Your task to perform on an android device: Look up the best rated coffee table on Ikea Image 0: 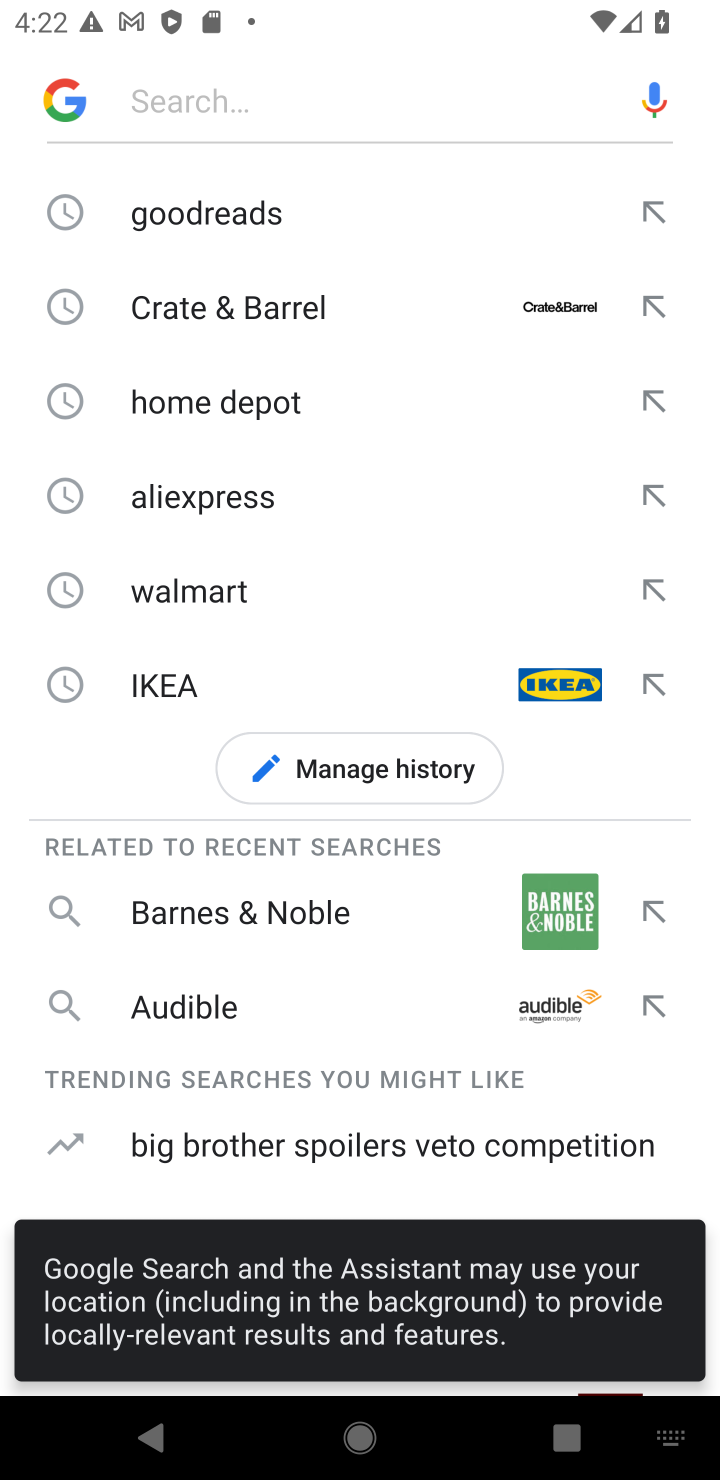
Step 0: press home button
Your task to perform on an android device: Look up the best rated coffee table on Ikea Image 1: 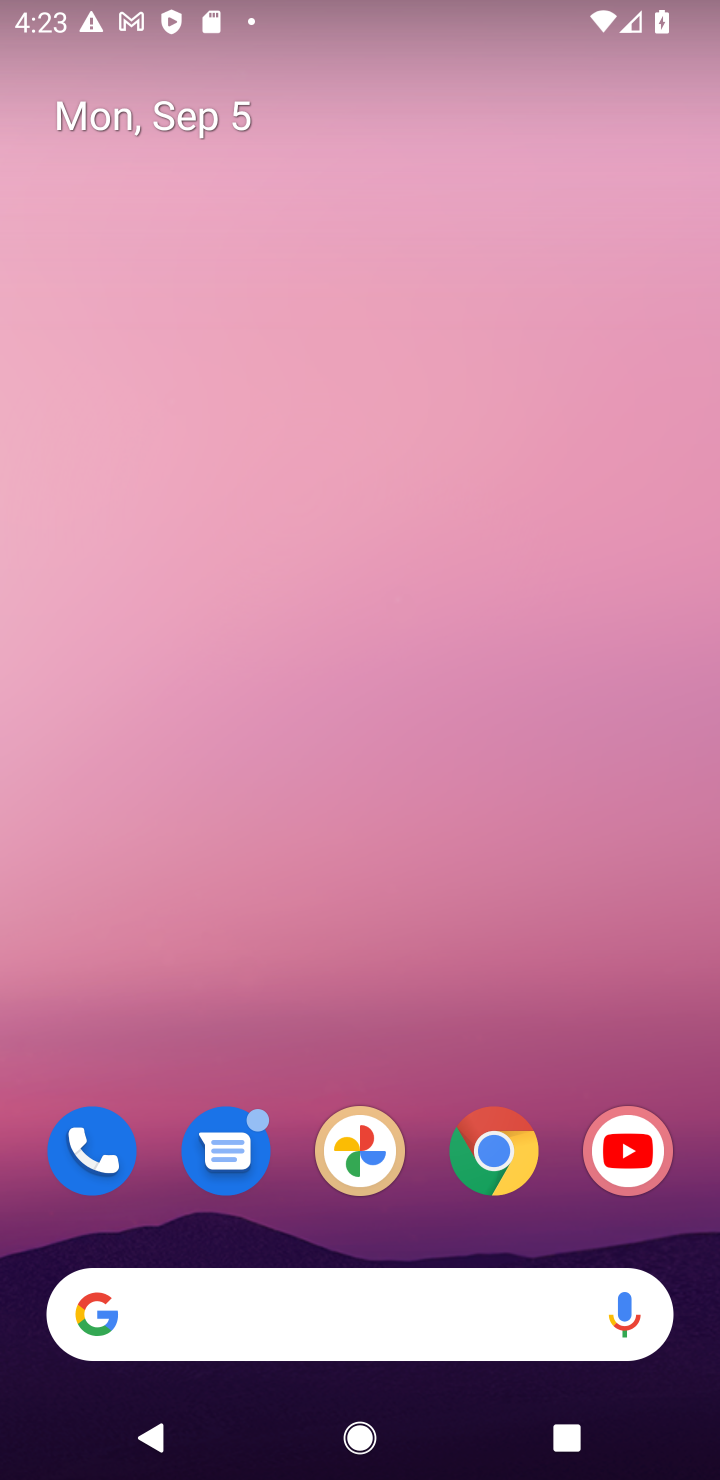
Step 1: drag from (485, 1198) to (581, 190)
Your task to perform on an android device: Look up the best rated coffee table on Ikea Image 2: 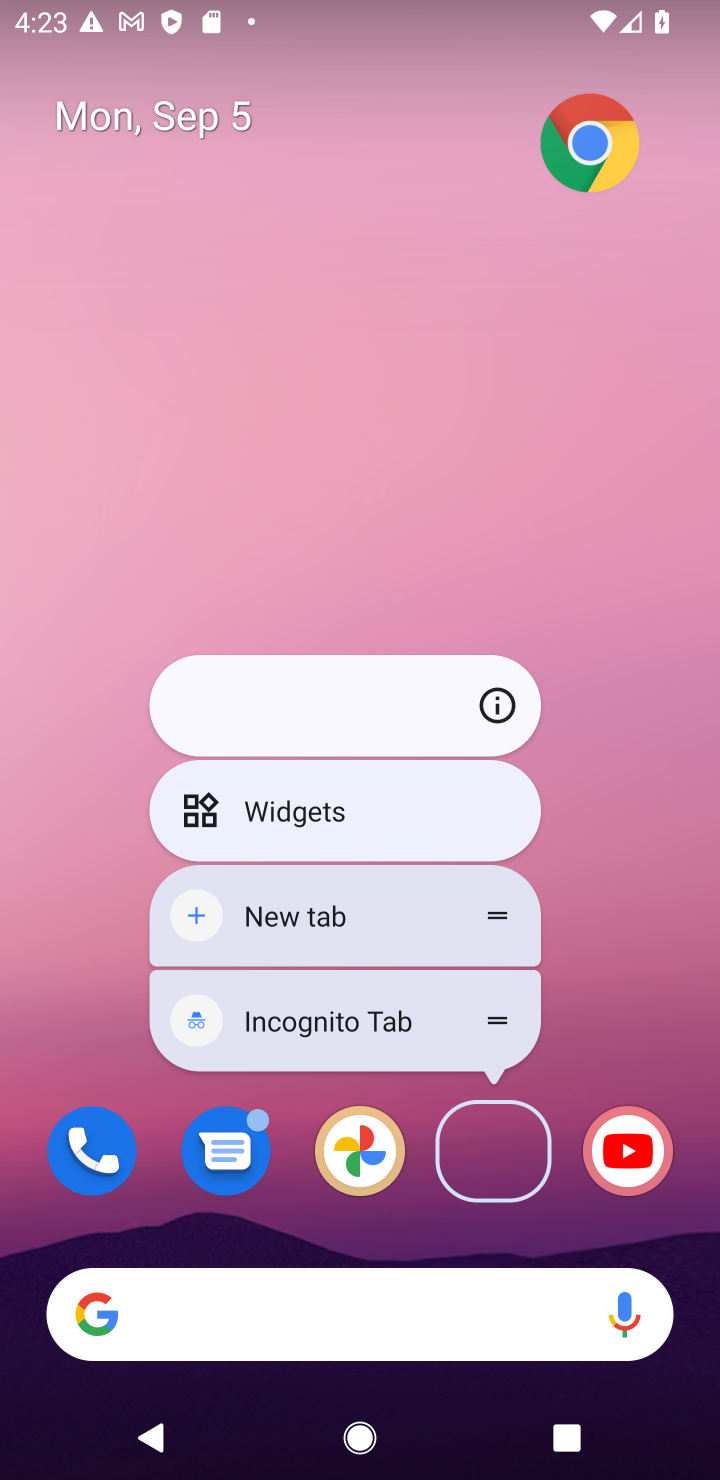
Step 2: click (438, 408)
Your task to perform on an android device: Look up the best rated coffee table on Ikea Image 3: 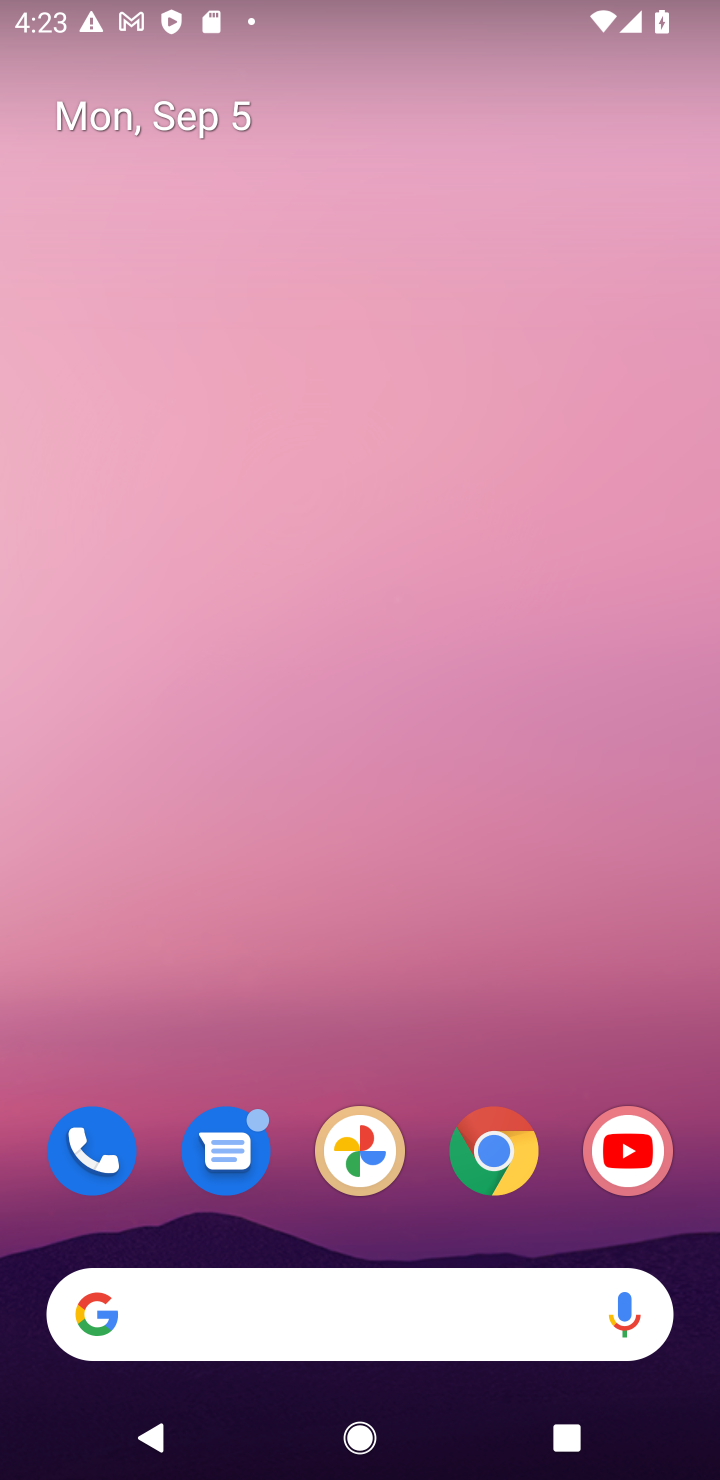
Step 3: drag from (349, 1256) to (500, 343)
Your task to perform on an android device: Look up the best rated coffee table on Ikea Image 4: 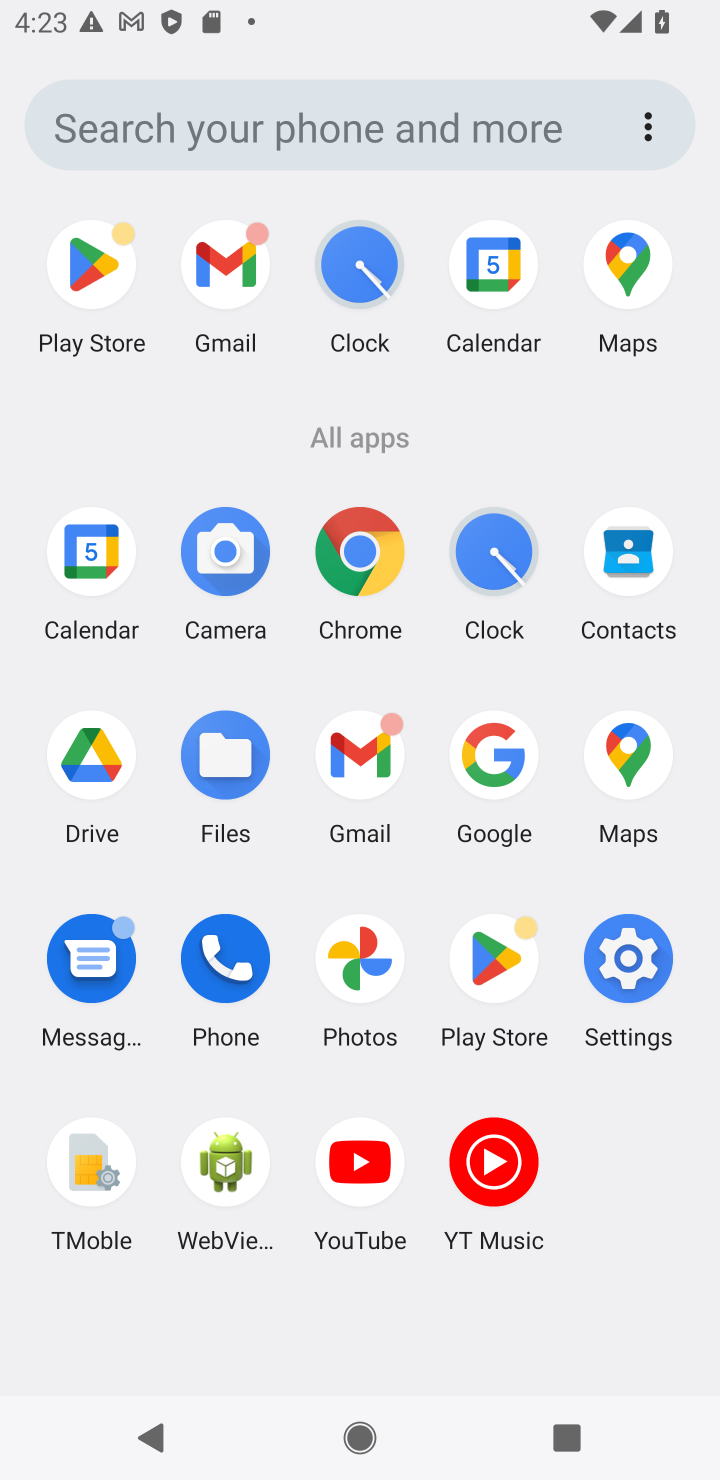
Step 4: click (372, 611)
Your task to perform on an android device: Look up the best rated coffee table on Ikea Image 5: 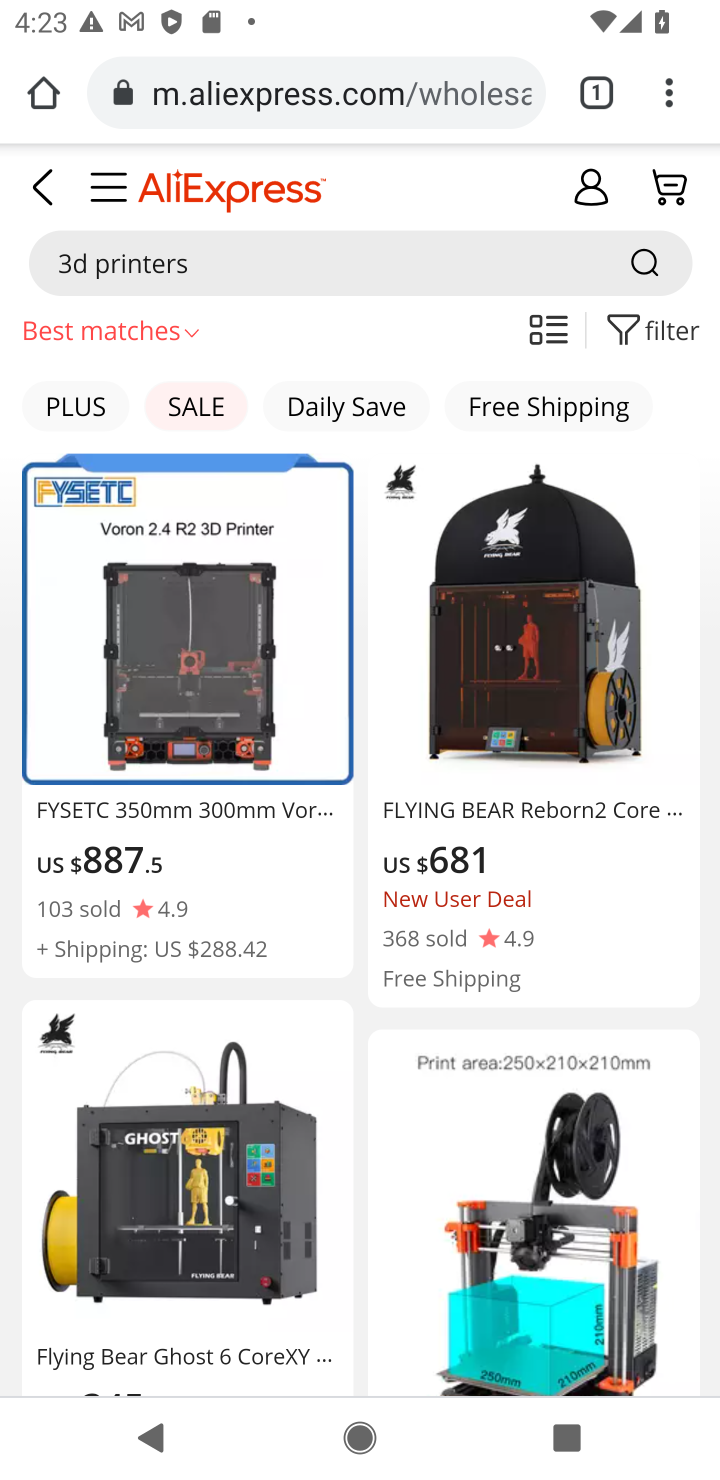
Step 5: click (372, 611)
Your task to perform on an android device: Look up the best rated coffee table on Ikea Image 6: 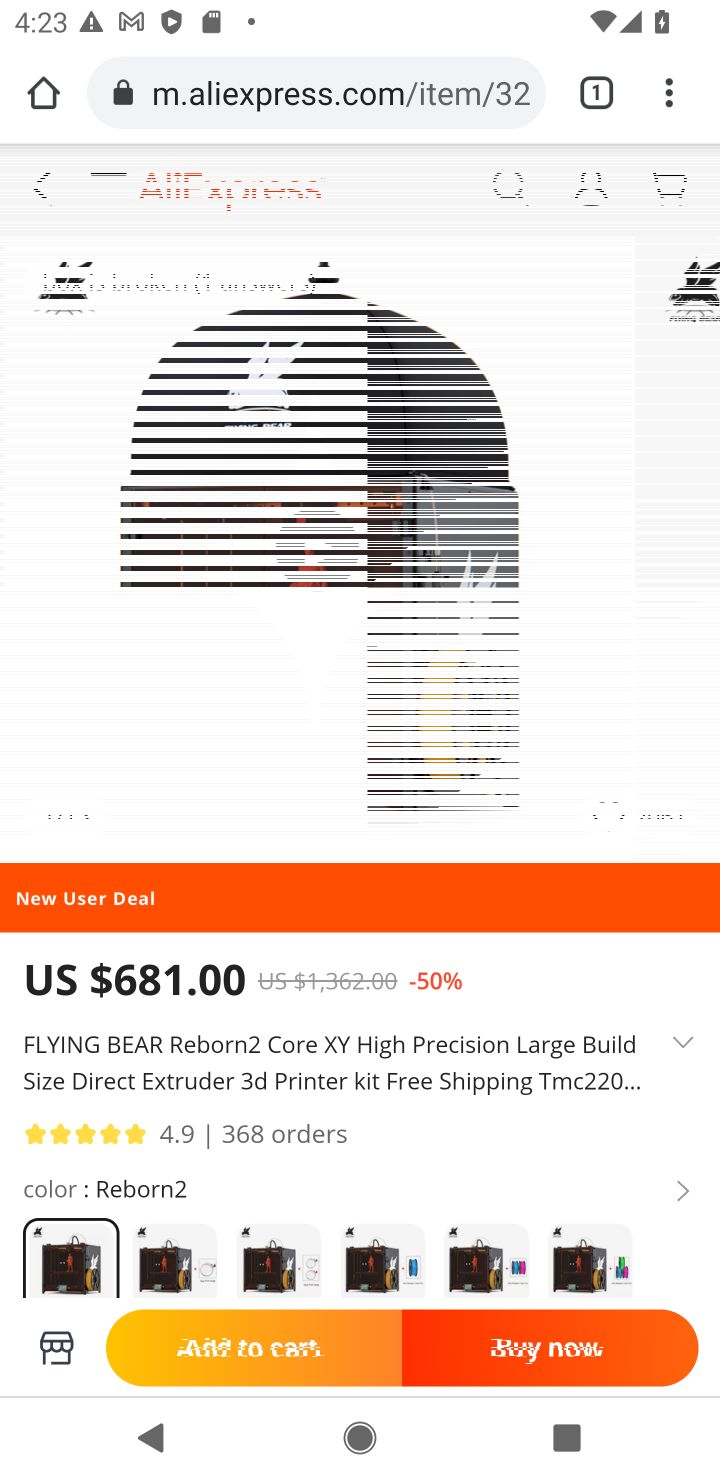
Step 6: click (419, 99)
Your task to perform on an android device: Look up the best rated coffee table on Ikea Image 7: 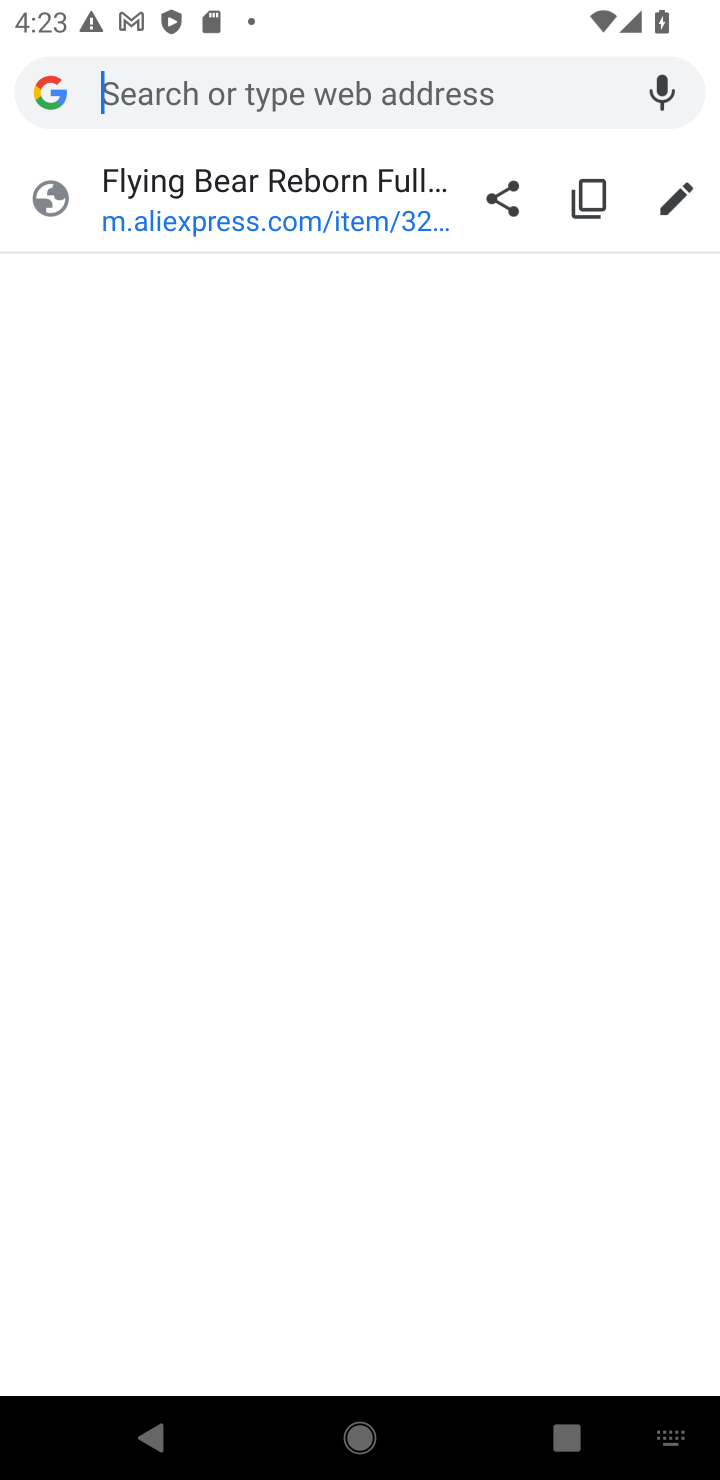
Step 7: type "Ikea"
Your task to perform on an android device: Look up the best rated coffee table on Ikea Image 8: 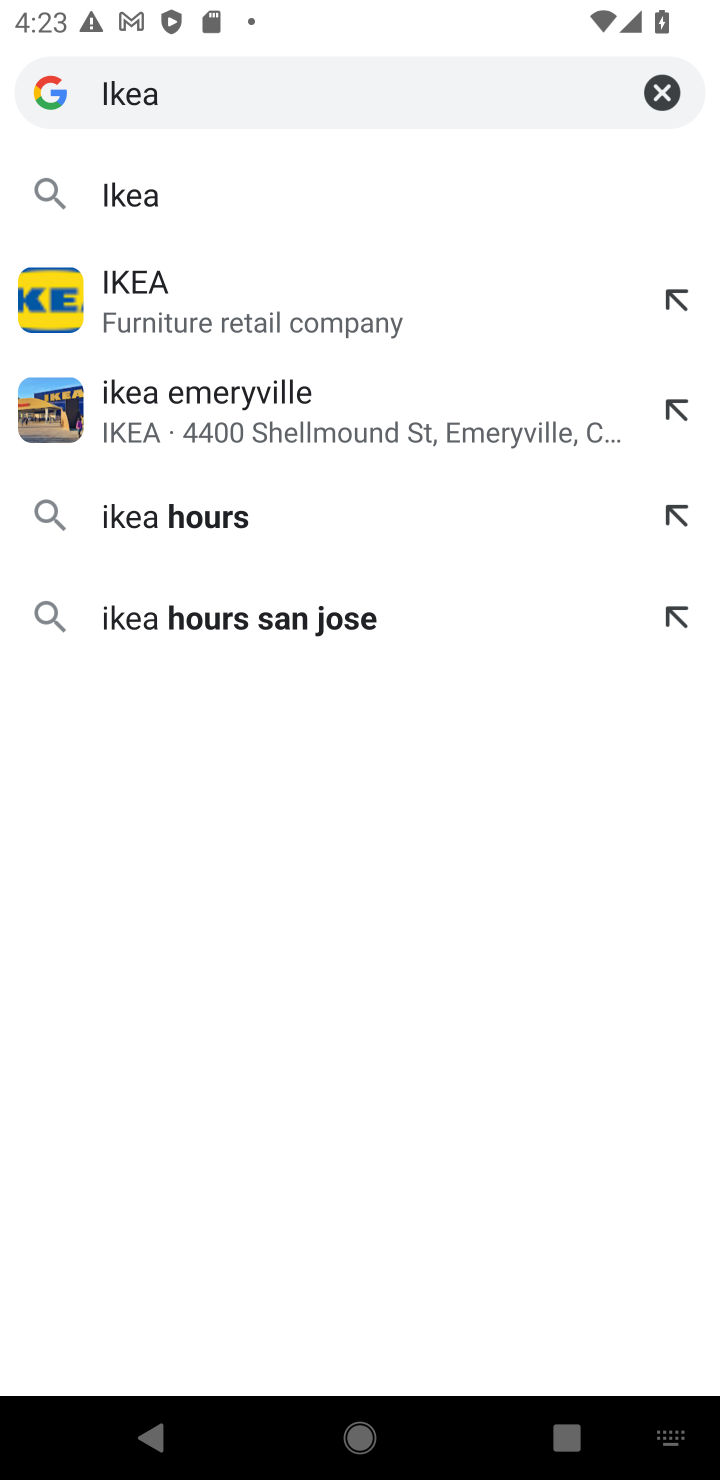
Step 8: click (431, 317)
Your task to perform on an android device: Look up the best rated coffee table on Ikea Image 9: 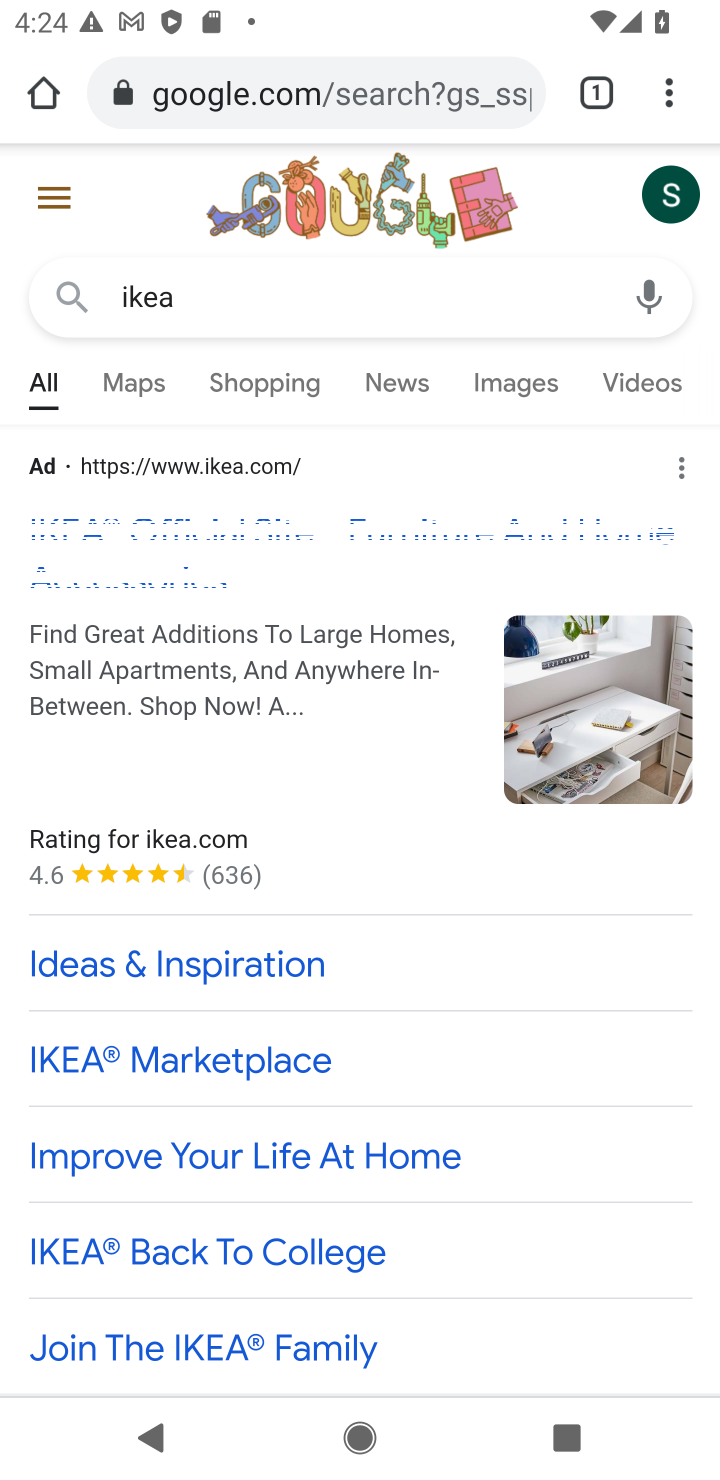
Step 9: drag from (526, 1084) to (541, 580)
Your task to perform on an android device: Look up the best rated coffee table on Ikea Image 10: 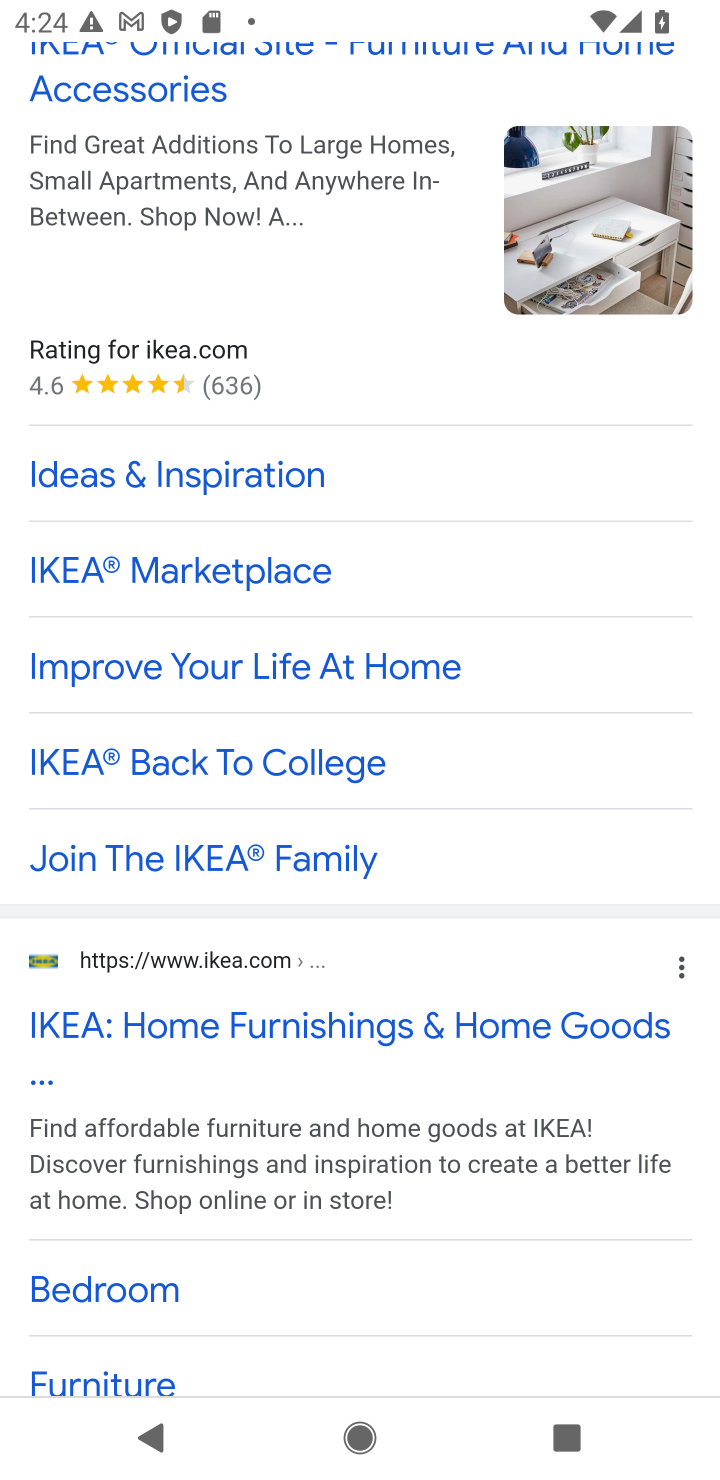
Step 10: click (290, 1033)
Your task to perform on an android device: Look up the best rated coffee table on Ikea Image 11: 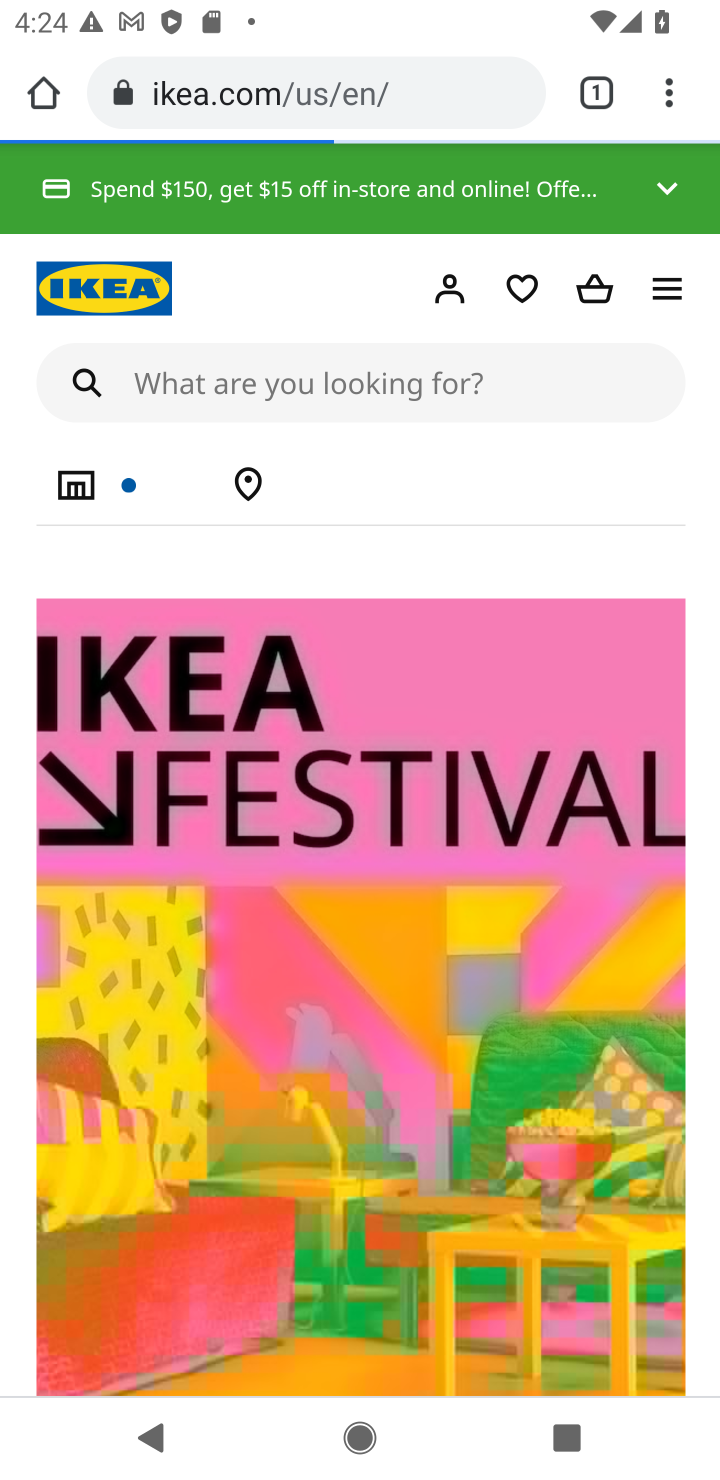
Step 11: click (377, 377)
Your task to perform on an android device: Look up the best rated coffee table on Ikea Image 12: 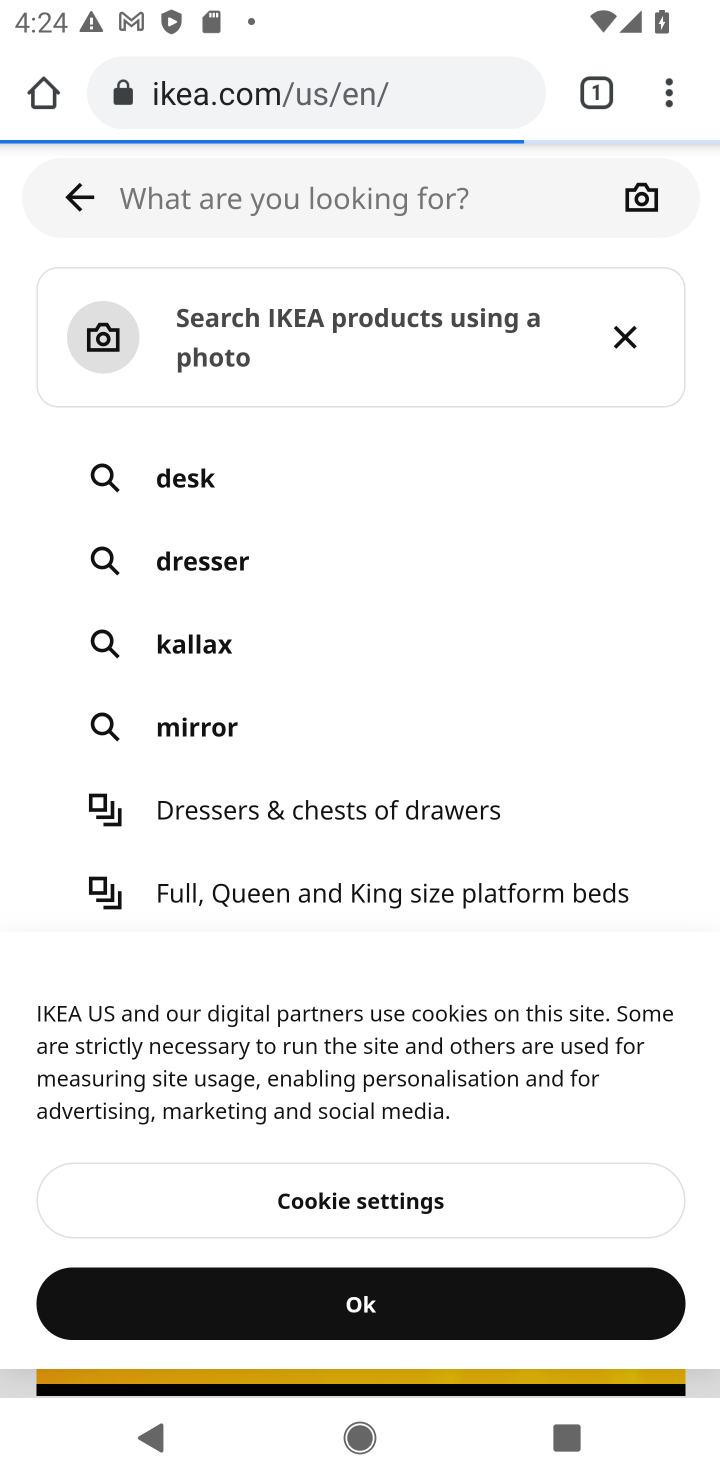
Step 12: type "best rated coffee table"
Your task to perform on an android device: Look up the best rated coffee table on Ikea Image 13: 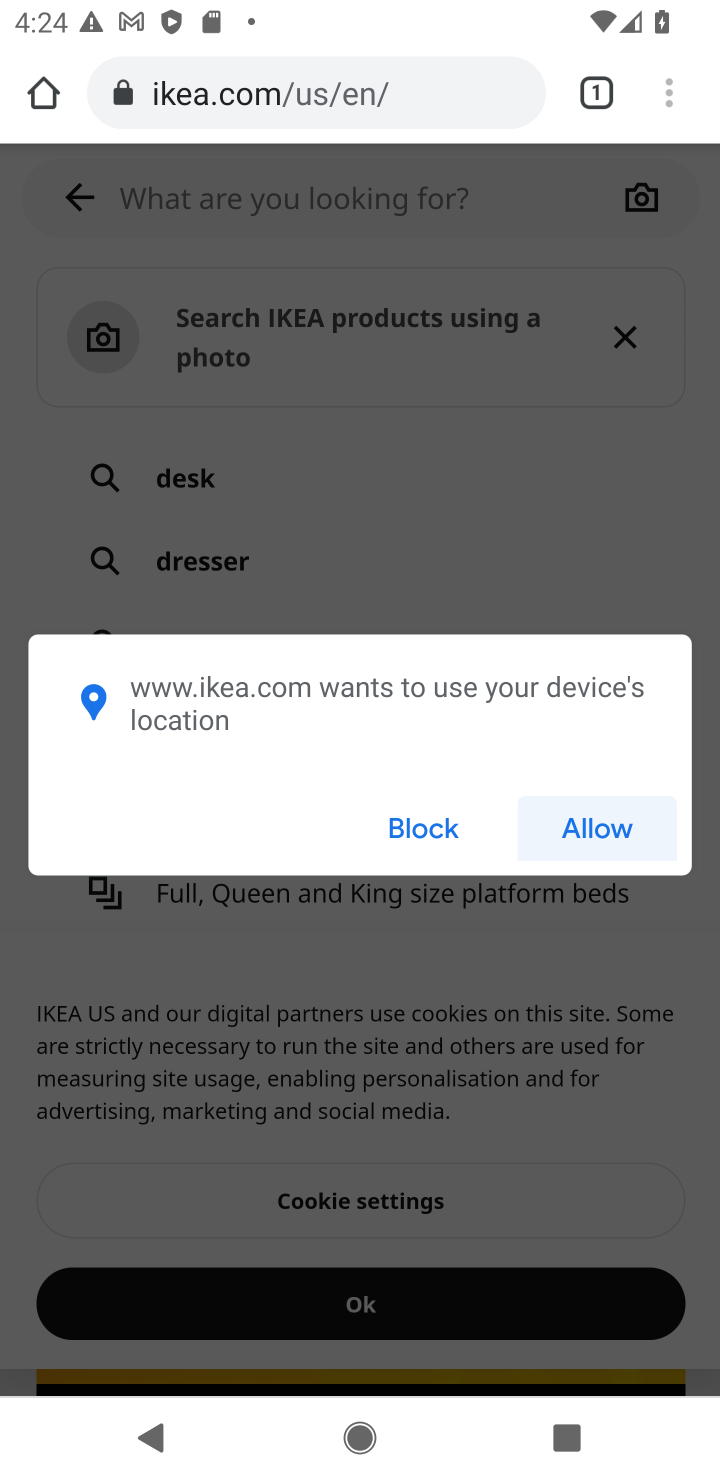
Step 13: click (607, 838)
Your task to perform on an android device: Look up the best rated coffee table on Ikea Image 14: 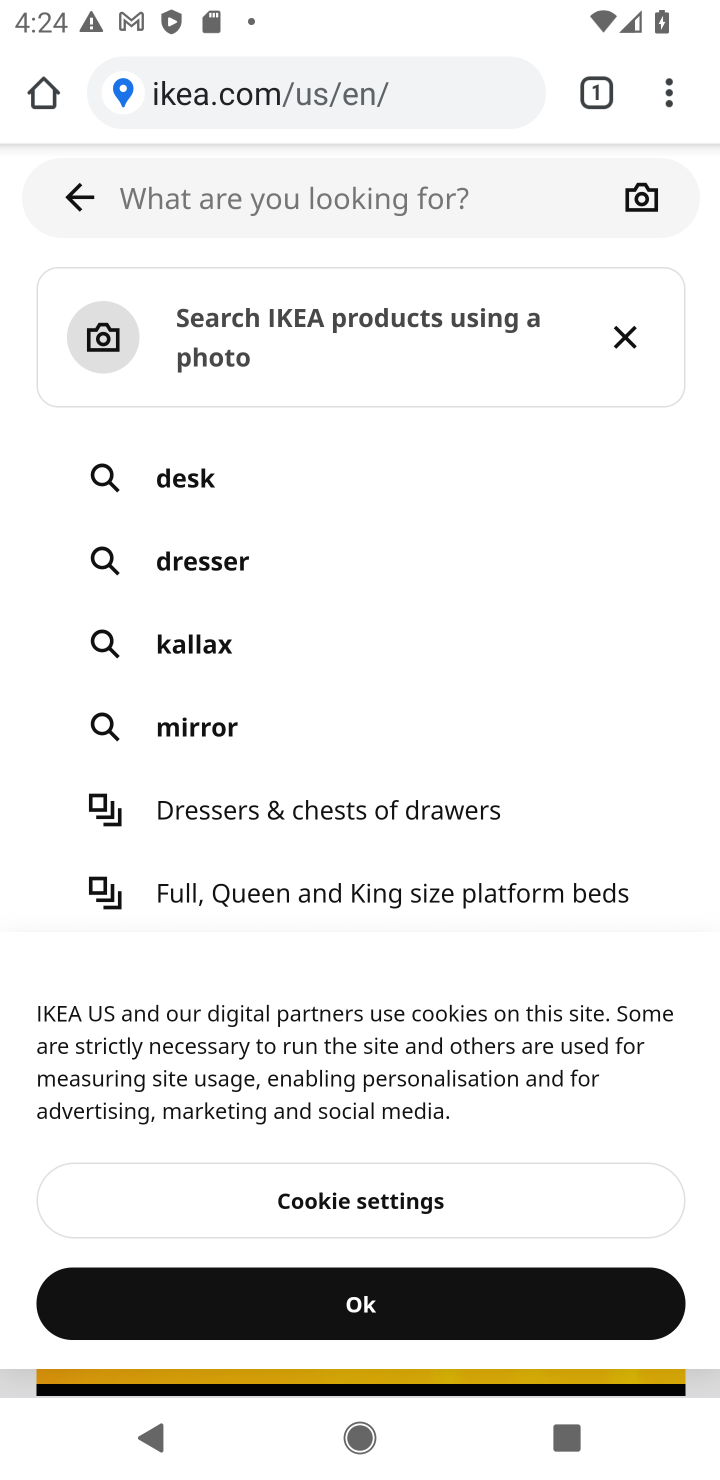
Step 14: click (317, 205)
Your task to perform on an android device: Look up the best rated coffee table on Ikea Image 15: 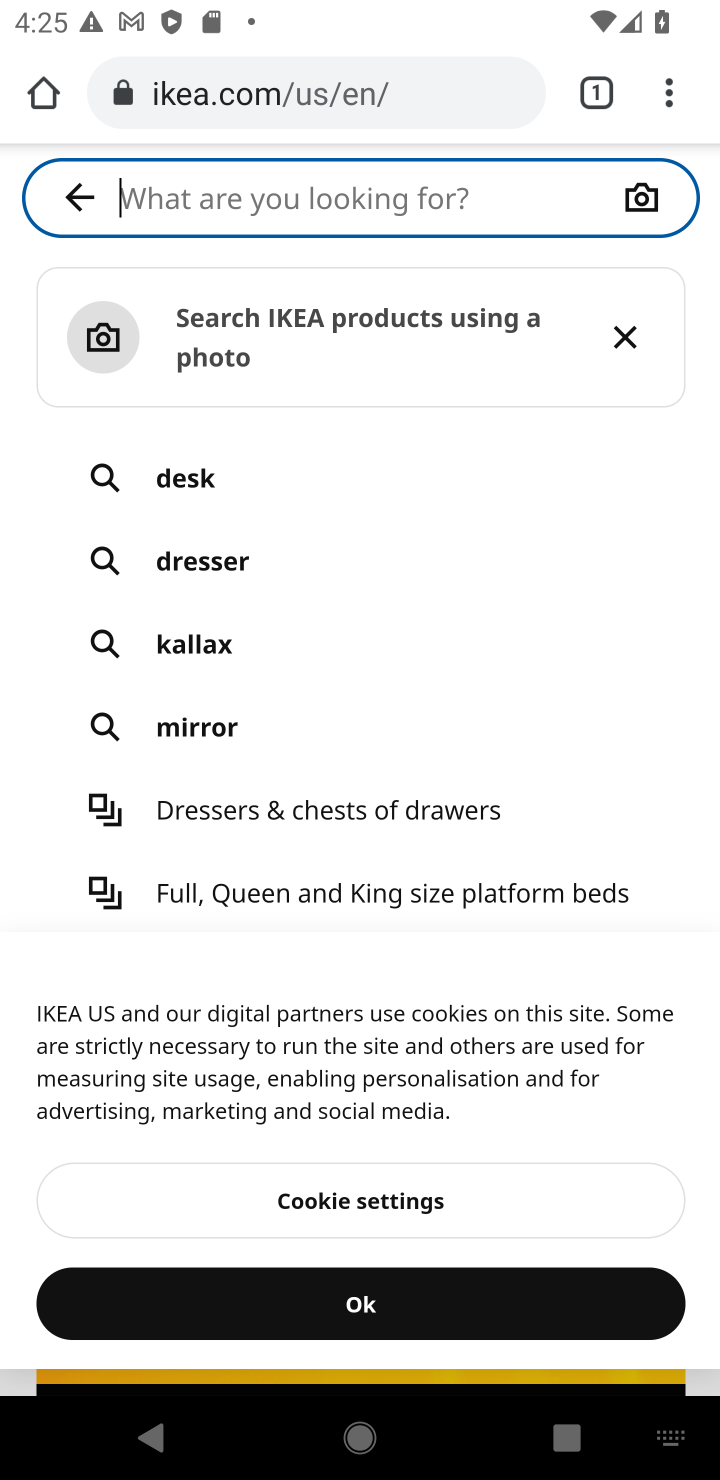
Step 15: type "best rated coffee table"
Your task to perform on an android device: Look up the best rated coffee table on Ikea Image 16: 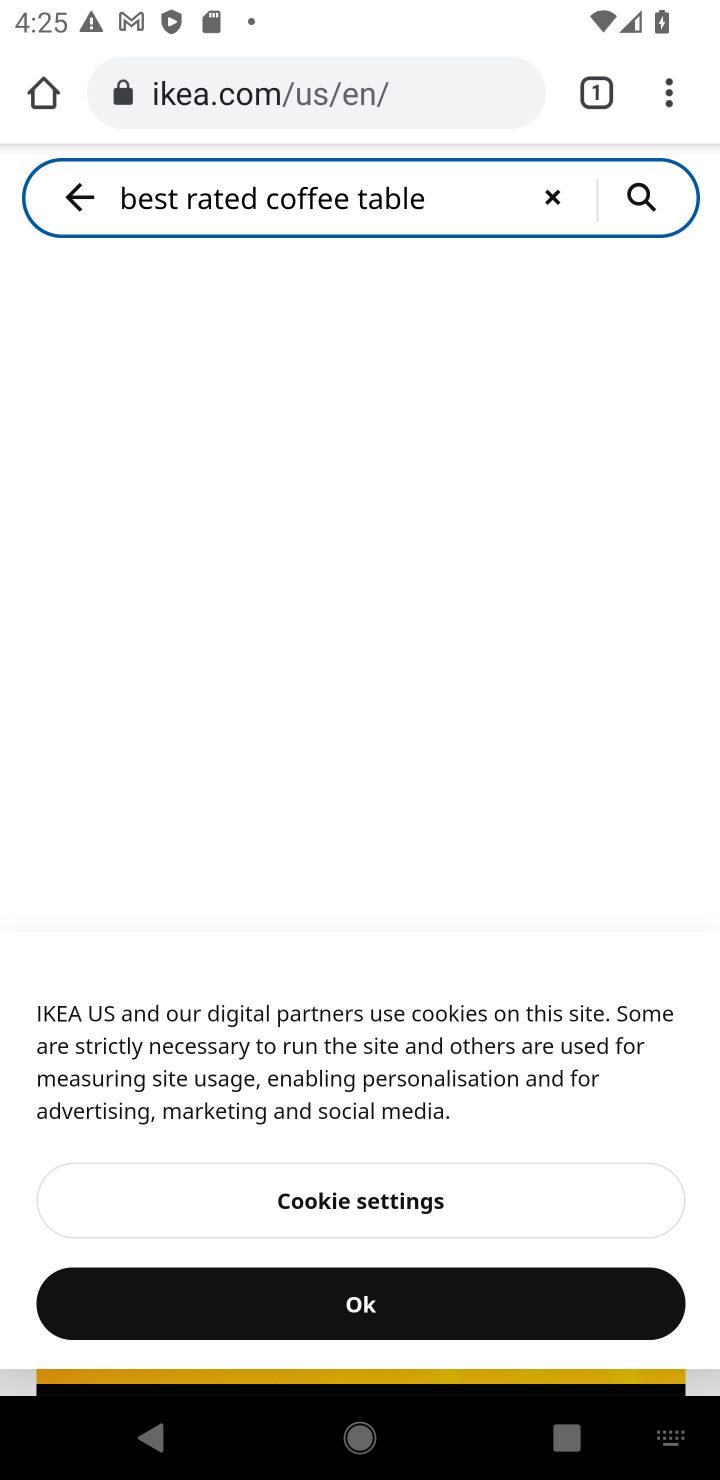
Step 16: click (631, 187)
Your task to perform on an android device: Look up the best rated coffee table on Ikea Image 17: 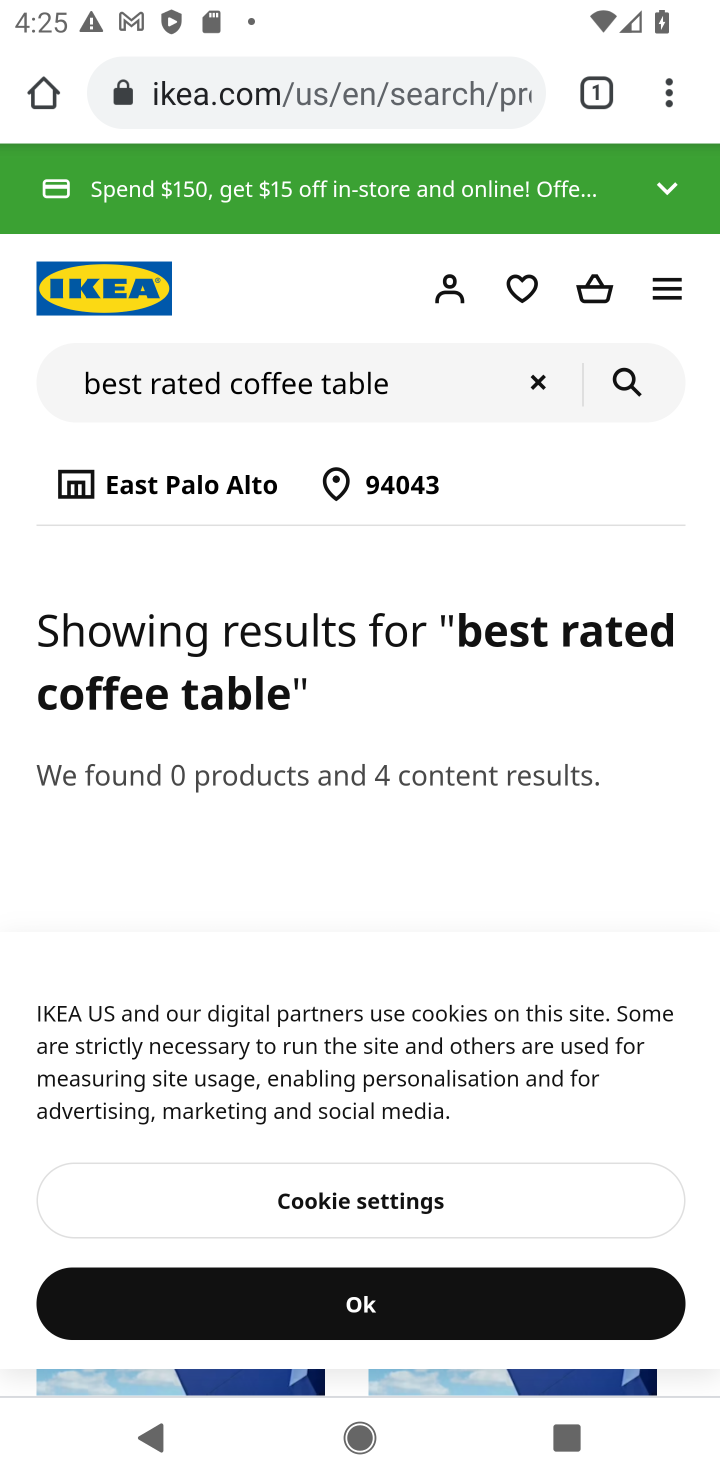
Step 17: task complete